Your task to perform on an android device: empty trash in the gmail app Image 0: 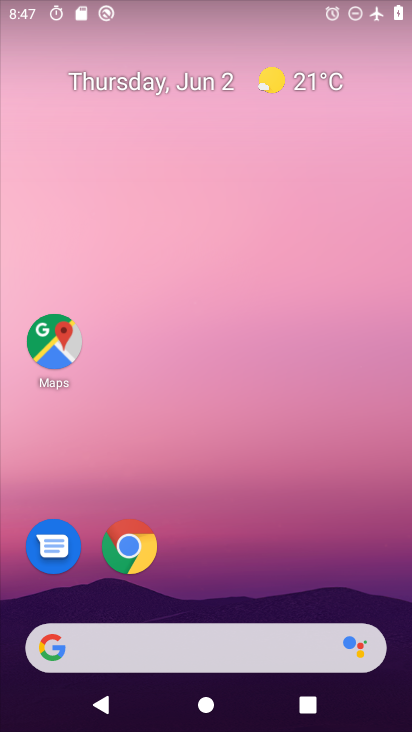
Step 0: drag from (339, 570) to (319, 107)
Your task to perform on an android device: empty trash in the gmail app Image 1: 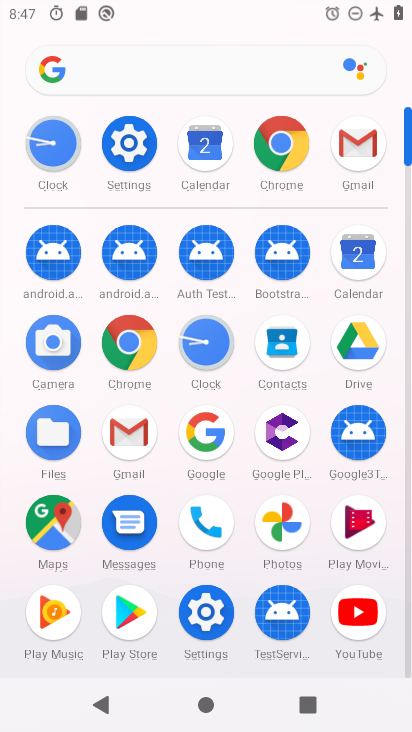
Step 1: click (141, 441)
Your task to perform on an android device: empty trash in the gmail app Image 2: 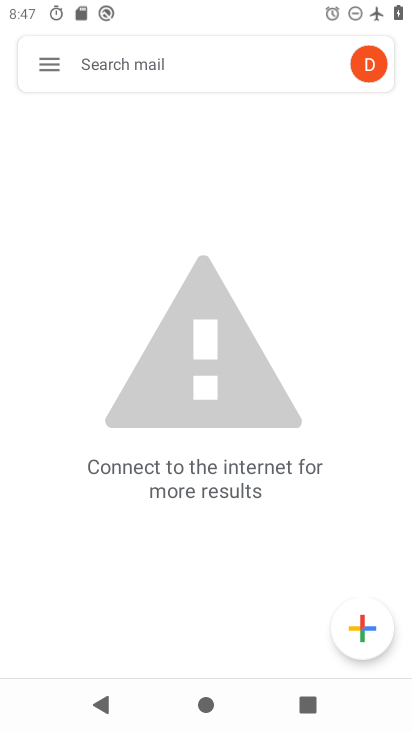
Step 2: click (50, 75)
Your task to perform on an android device: empty trash in the gmail app Image 3: 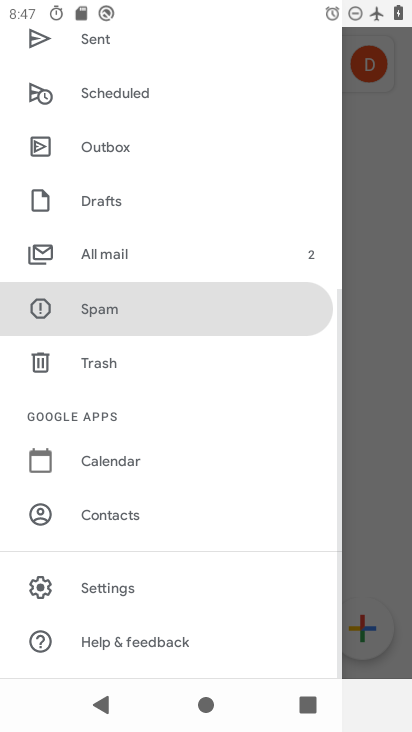
Step 3: click (119, 355)
Your task to perform on an android device: empty trash in the gmail app Image 4: 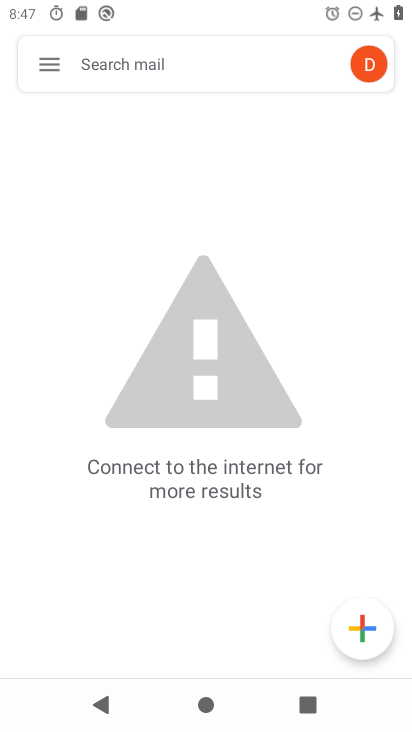
Step 4: task complete